Your task to perform on an android device: Turn on the flashlight Image 0: 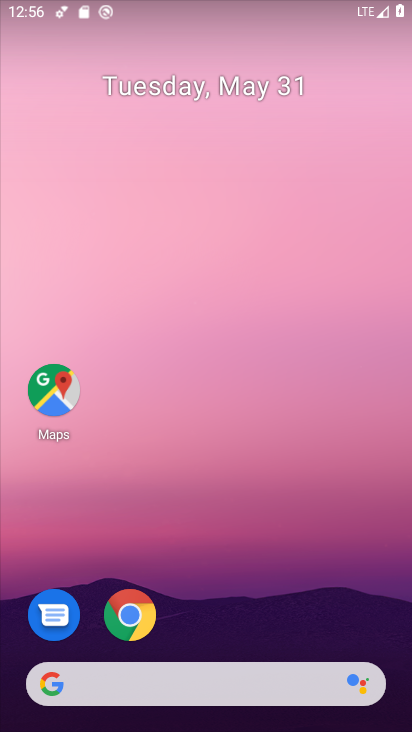
Step 0: drag from (172, 515) to (274, 35)
Your task to perform on an android device: Turn on the flashlight Image 1: 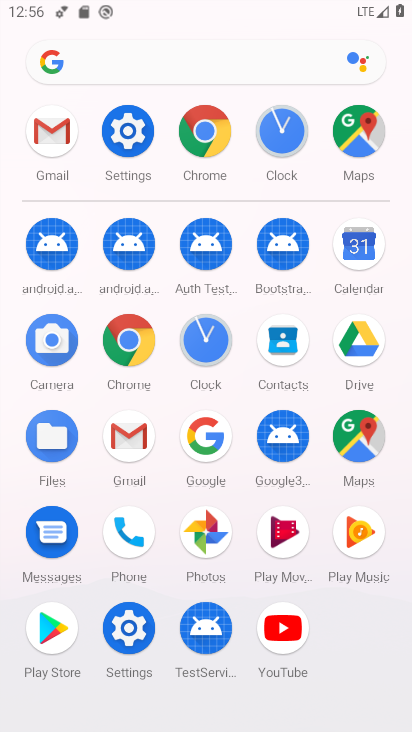
Step 1: click (130, 148)
Your task to perform on an android device: Turn on the flashlight Image 2: 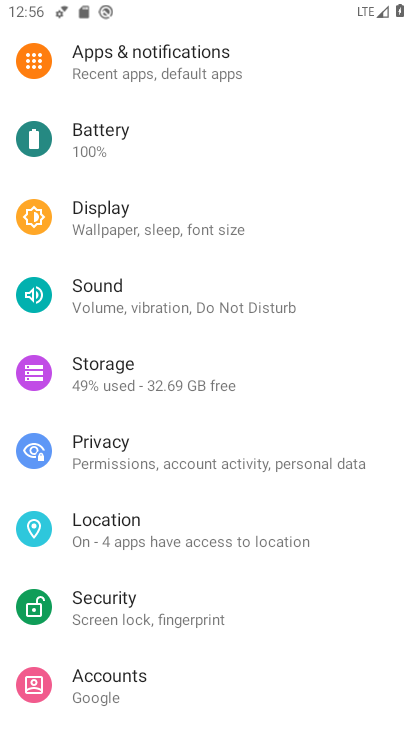
Step 2: drag from (201, 320) to (206, 374)
Your task to perform on an android device: Turn on the flashlight Image 3: 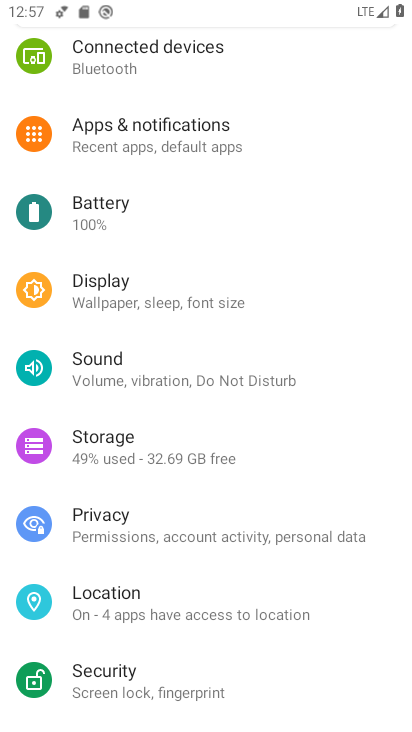
Step 3: drag from (210, 116) to (187, 296)
Your task to perform on an android device: Turn on the flashlight Image 4: 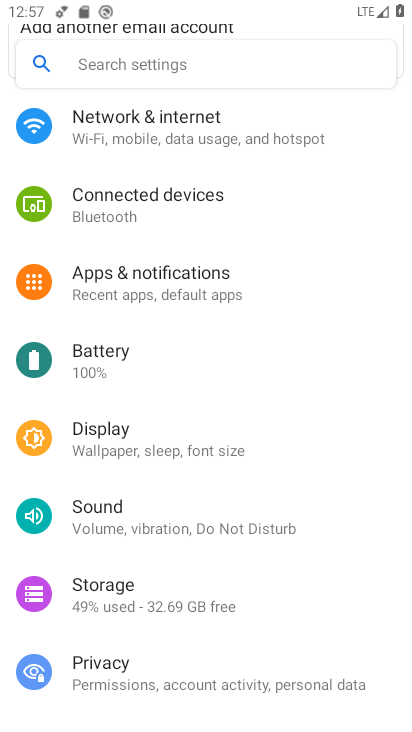
Step 4: click (203, 56)
Your task to perform on an android device: Turn on the flashlight Image 5: 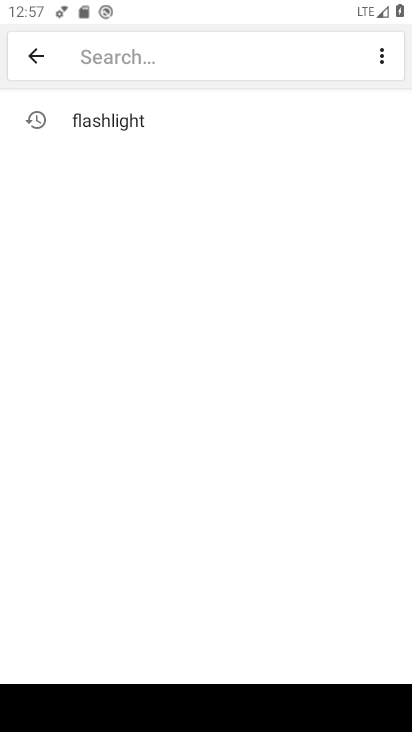
Step 5: type "fl"
Your task to perform on an android device: Turn on the flashlight Image 6: 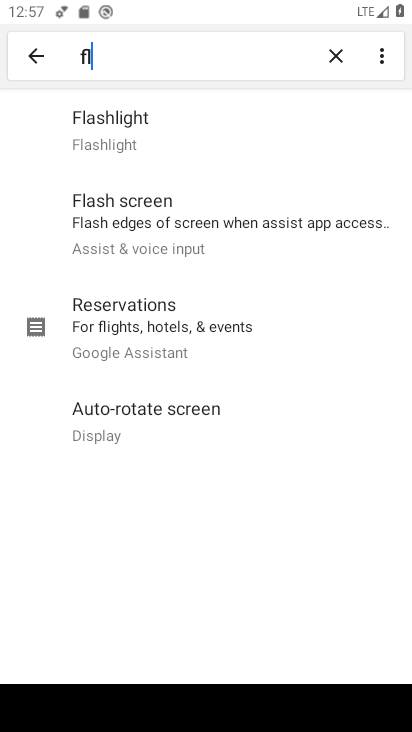
Step 6: click (118, 123)
Your task to perform on an android device: Turn on the flashlight Image 7: 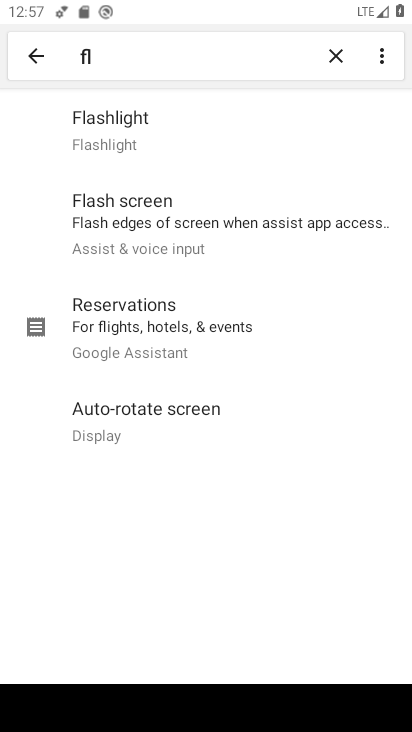
Step 7: click (122, 128)
Your task to perform on an android device: Turn on the flashlight Image 8: 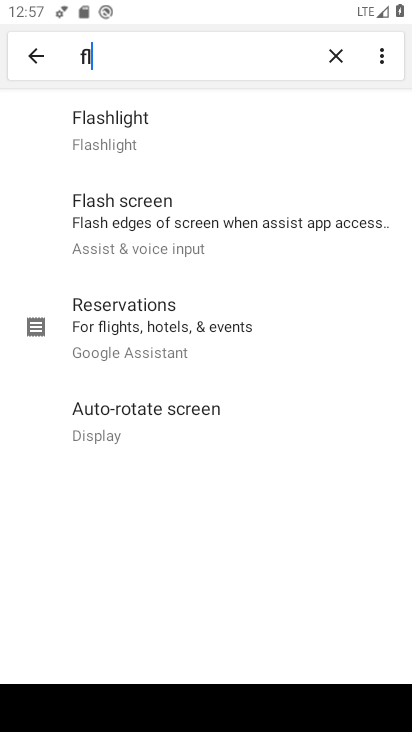
Step 8: click (134, 246)
Your task to perform on an android device: Turn on the flashlight Image 9: 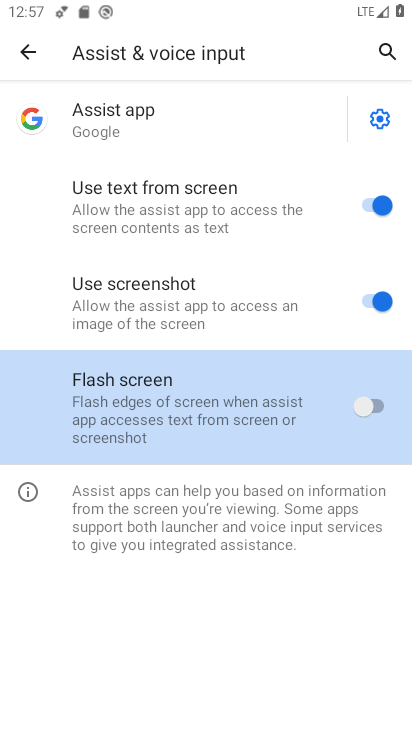
Step 9: task complete